Your task to perform on an android device: find which apps use the phone's location Image 0: 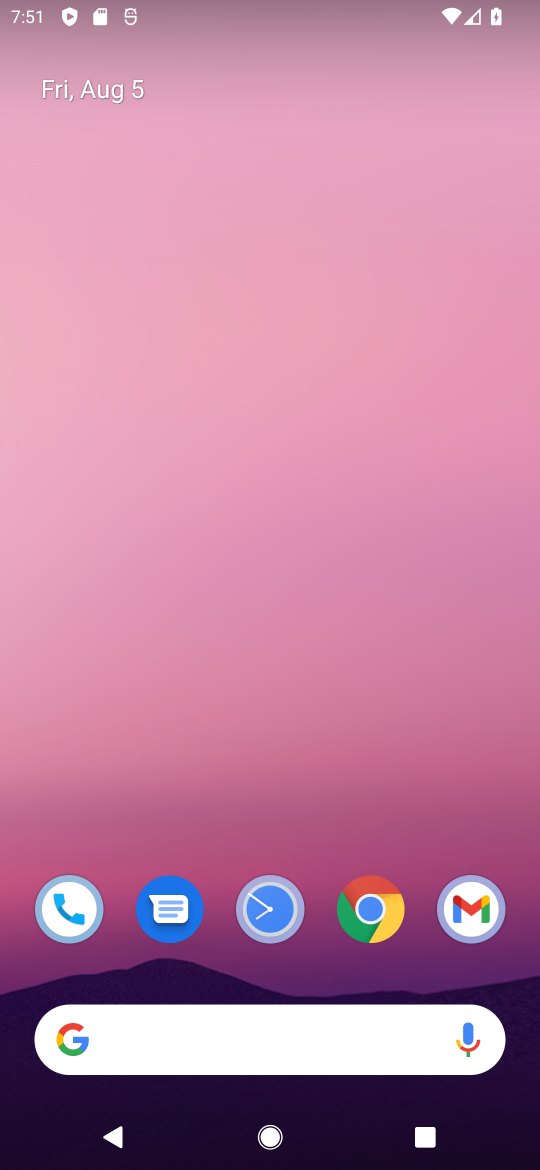
Step 0: drag from (390, 679) to (230, 95)
Your task to perform on an android device: find which apps use the phone's location Image 1: 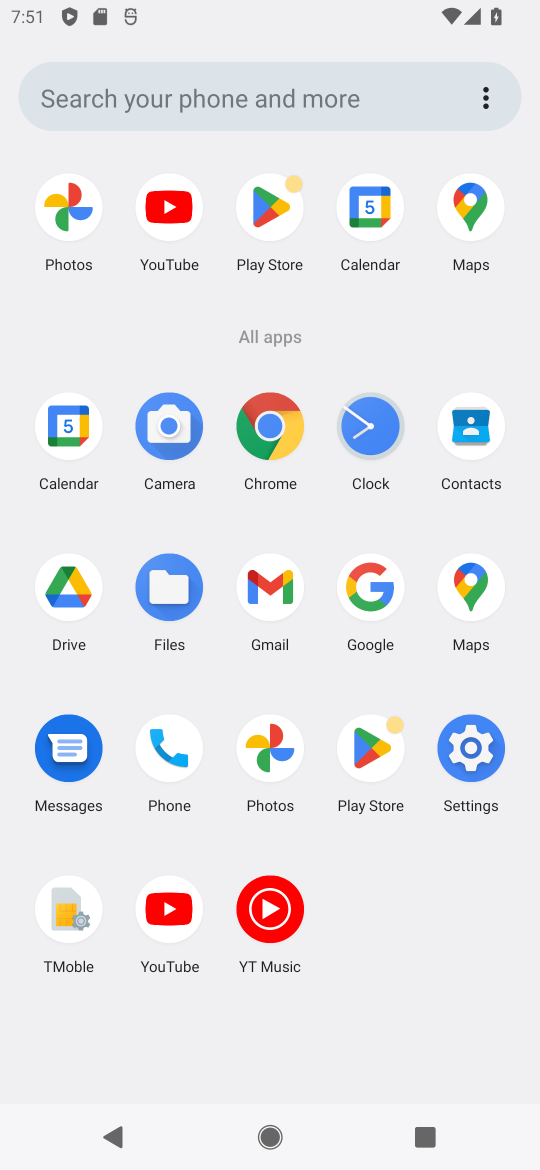
Step 1: click (463, 731)
Your task to perform on an android device: find which apps use the phone's location Image 2: 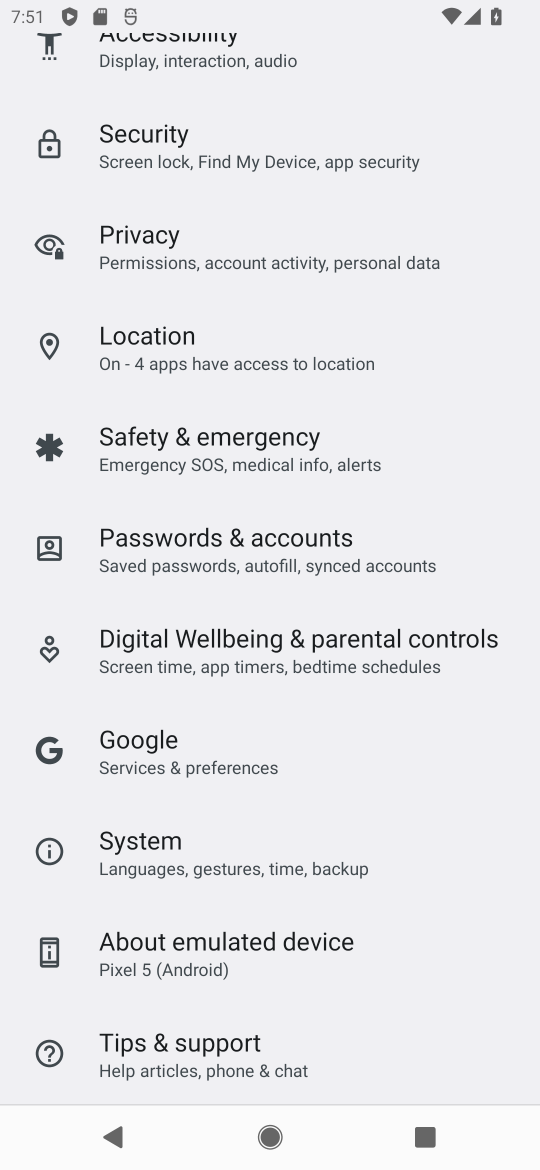
Step 2: click (328, 337)
Your task to perform on an android device: find which apps use the phone's location Image 3: 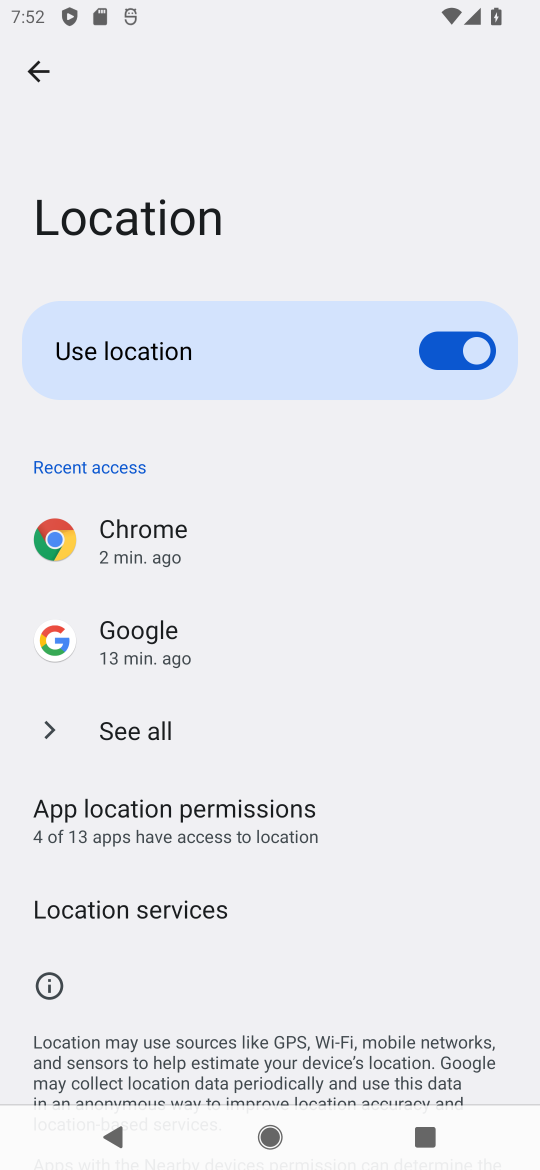
Step 3: click (255, 813)
Your task to perform on an android device: find which apps use the phone's location Image 4: 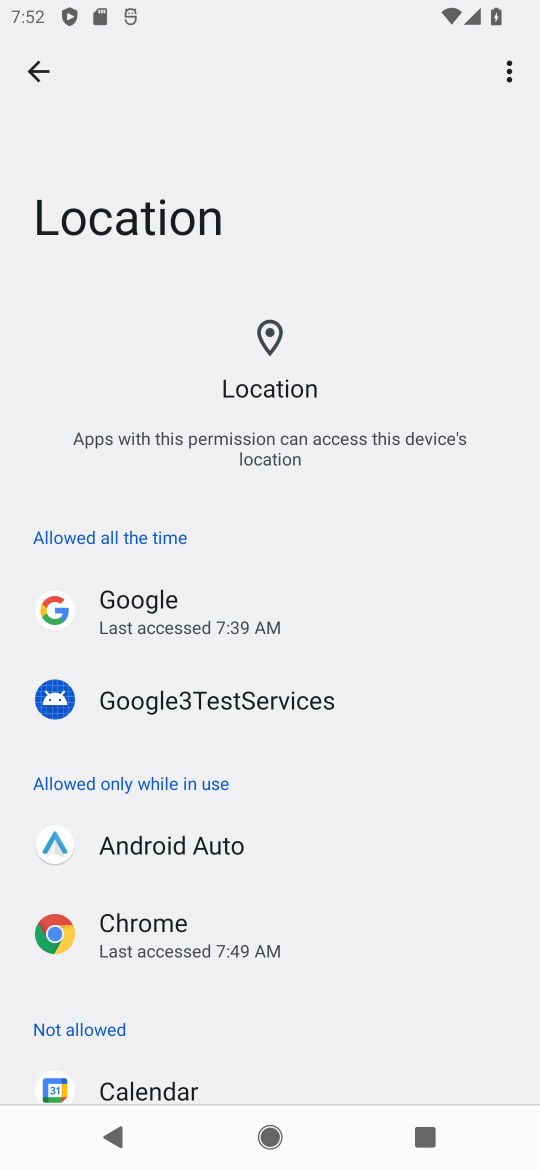
Step 4: task complete